Your task to perform on an android device: move a message to another label in the gmail app Image 0: 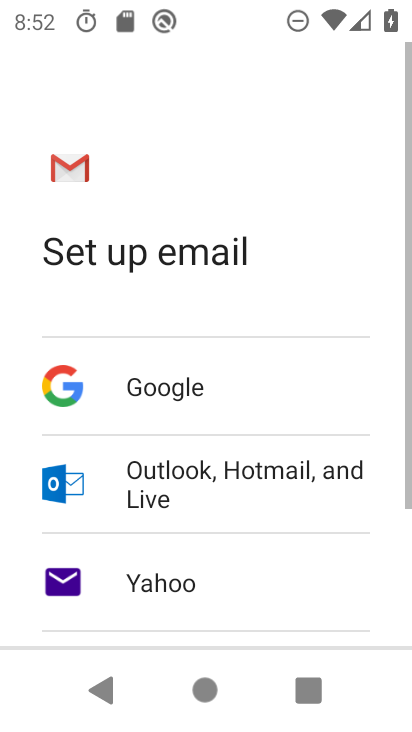
Step 0: press home button
Your task to perform on an android device: move a message to another label in the gmail app Image 1: 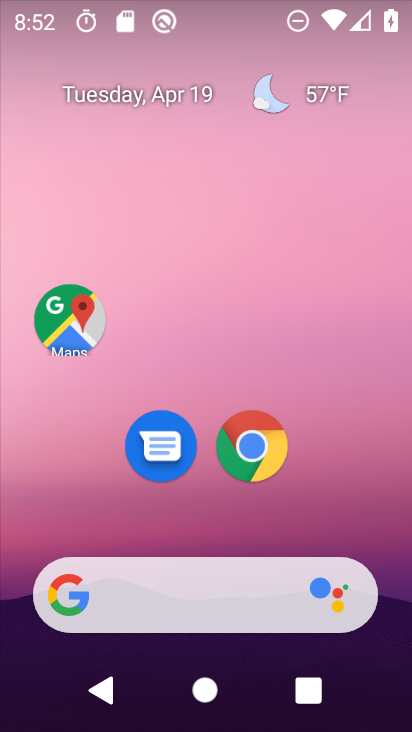
Step 1: drag from (330, 488) to (307, 79)
Your task to perform on an android device: move a message to another label in the gmail app Image 2: 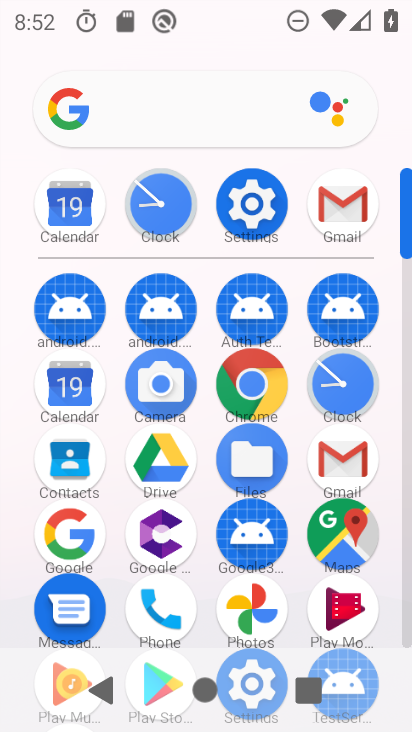
Step 2: click (341, 219)
Your task to perform on an android device: move a message to another label in the gmail app Image 3: 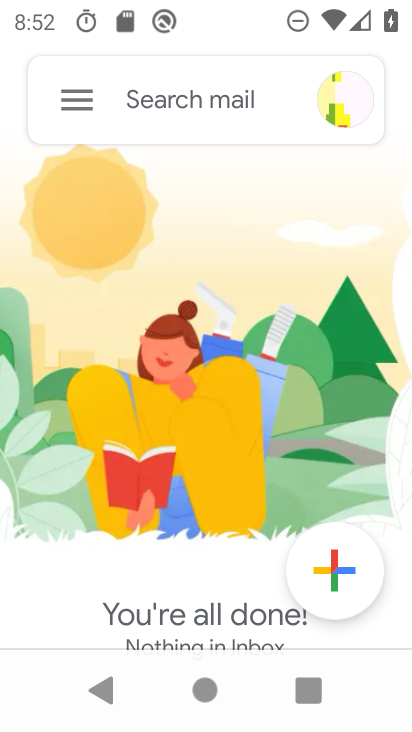
Step 3: click (81, 106)
Your task to perform on an android device: move a message to another label in the gmail app Image 4: 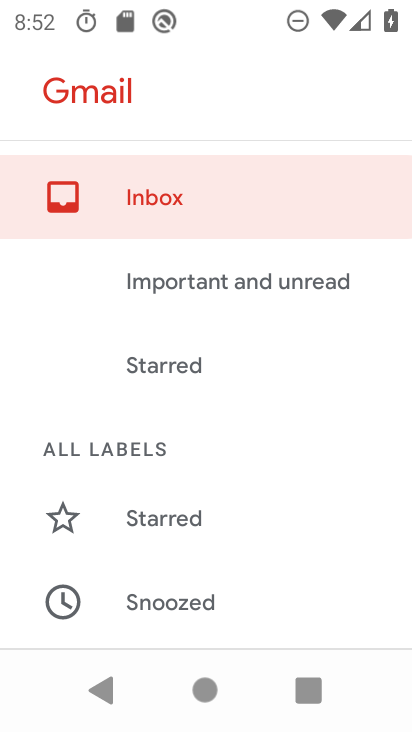
Step 4: task complete